Your task to perform on an android device: Go to eBay Image 0: 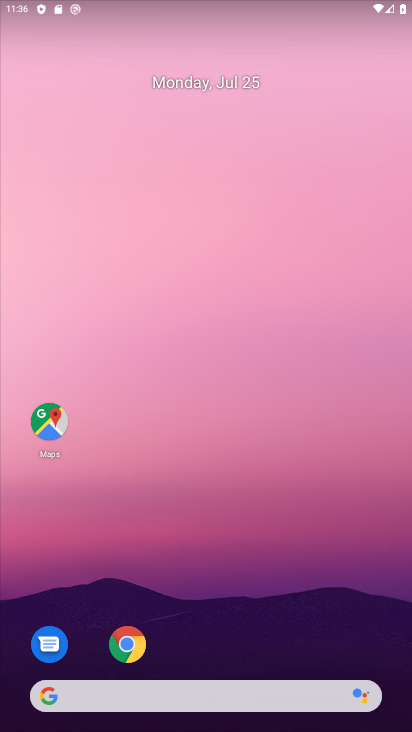
Step 0: drag from (273, 652) to (214, 56)
Your task to perform on an android device: Go to eBay Image 1: 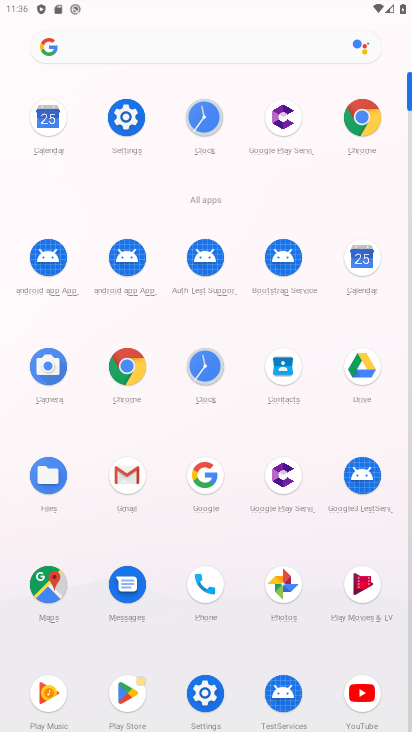
Step 1: click (360, 121)
Your task to perform on an android device: Go to eBay Image 2: 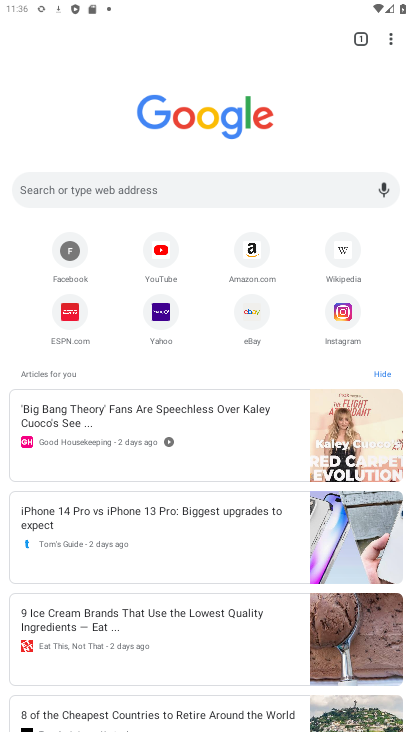
Step 2: click (250, 314)
Your task to perform on an android device: Go to eBay Image 3: 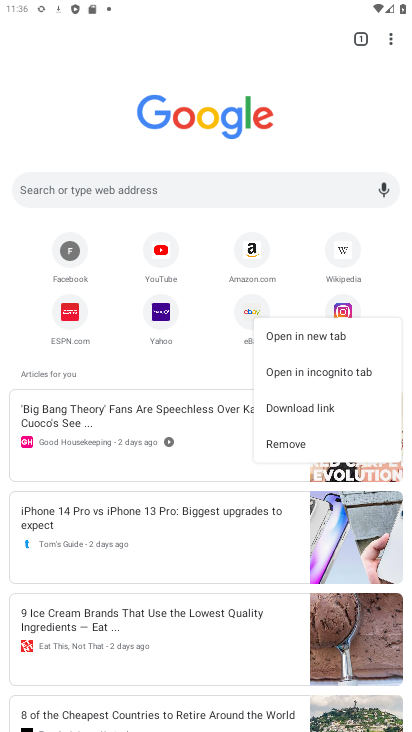
Step 3: click (250, 312)
Your task to perform on an android device: Go to eBay Image 4: 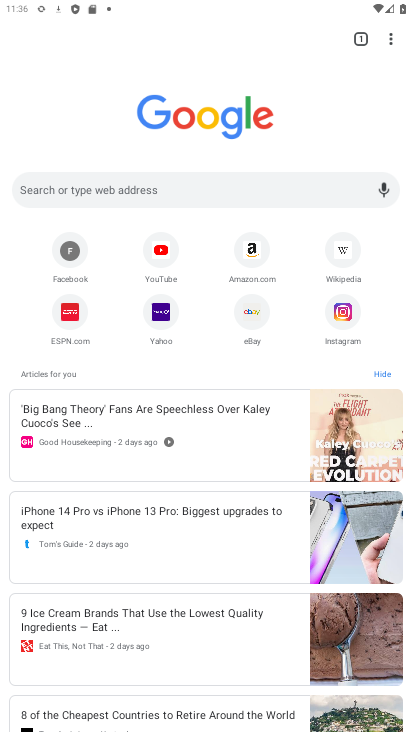
Step 4: click (254, 315)
Your task to perform on an android device: Go to eBay Image 5: 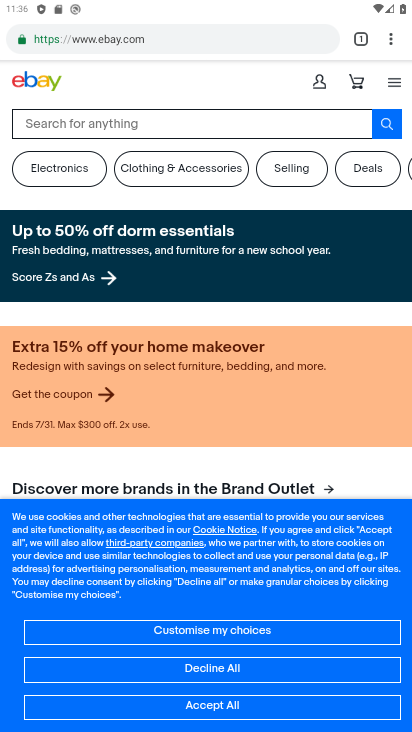
Step 5: task complete